Your task to perform on an android device: Show me popular games on the Play Store Image 0: 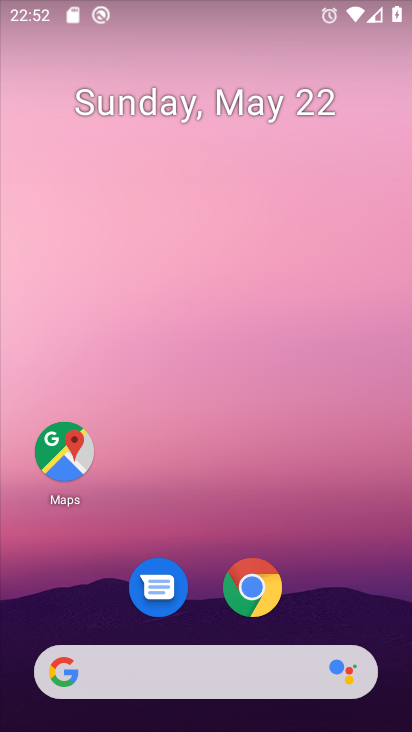
Step 0: drag from (265, 520) to (314, 13)
Your task to perform on an android device: Show me popular games on the Play Store Image 1: 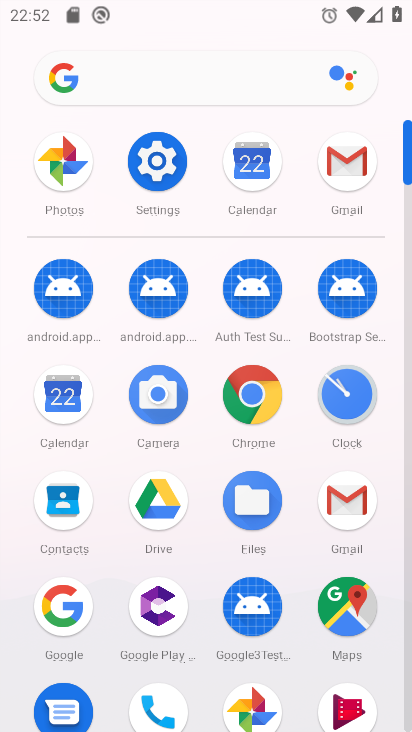
Step 1: drag from (102, 390) to (156, 69)
Your task to perform on an android device: Show me popular games on the Play Store Image 2: 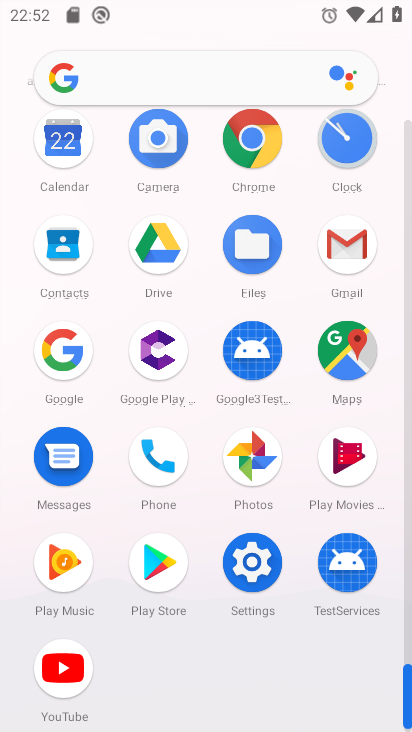
Step 2: click (167, 544)
Your task to perform on an android device: Show me popular games on the Play Store Image 3: 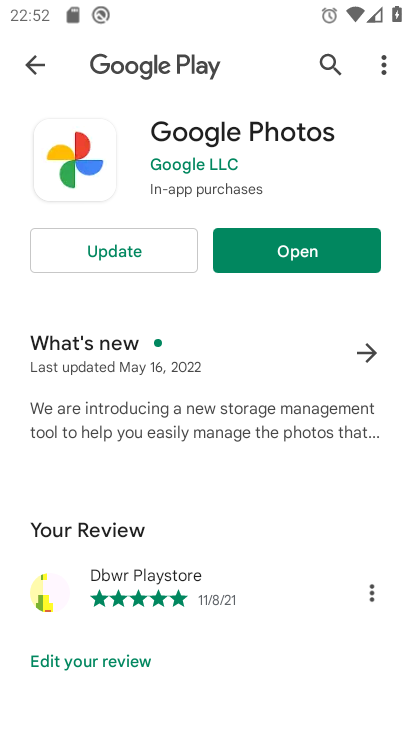
Step 3: click (37, 59)
Your task to perform on an android device: Show me popular games on the Play Store Image 4: 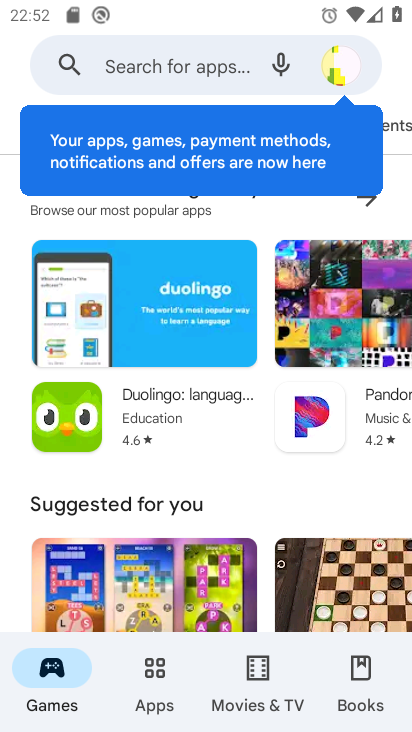
Step 4: drag from (284, 533) to (314, 129)
Your task to perform on an android device: Show me popular games on the Play Store Image 5: 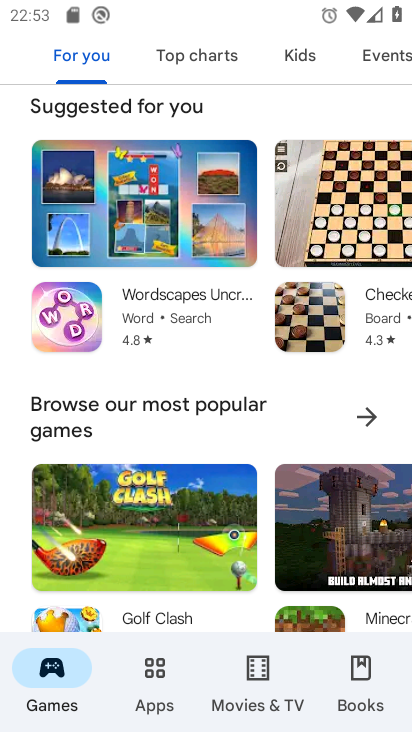
Step 5: click (367, 409)
Your task to perform on an android device: Show me popular games on the Play Store Image 6: 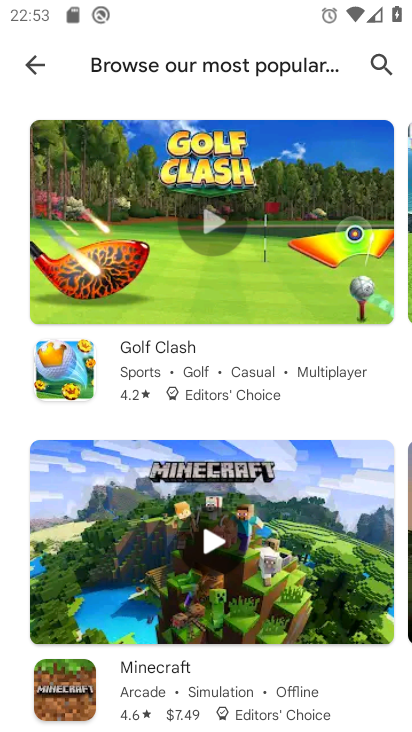
Step 6: task complete